Your task to perform on an android device: open a bookmark in the chrome app Image 0: 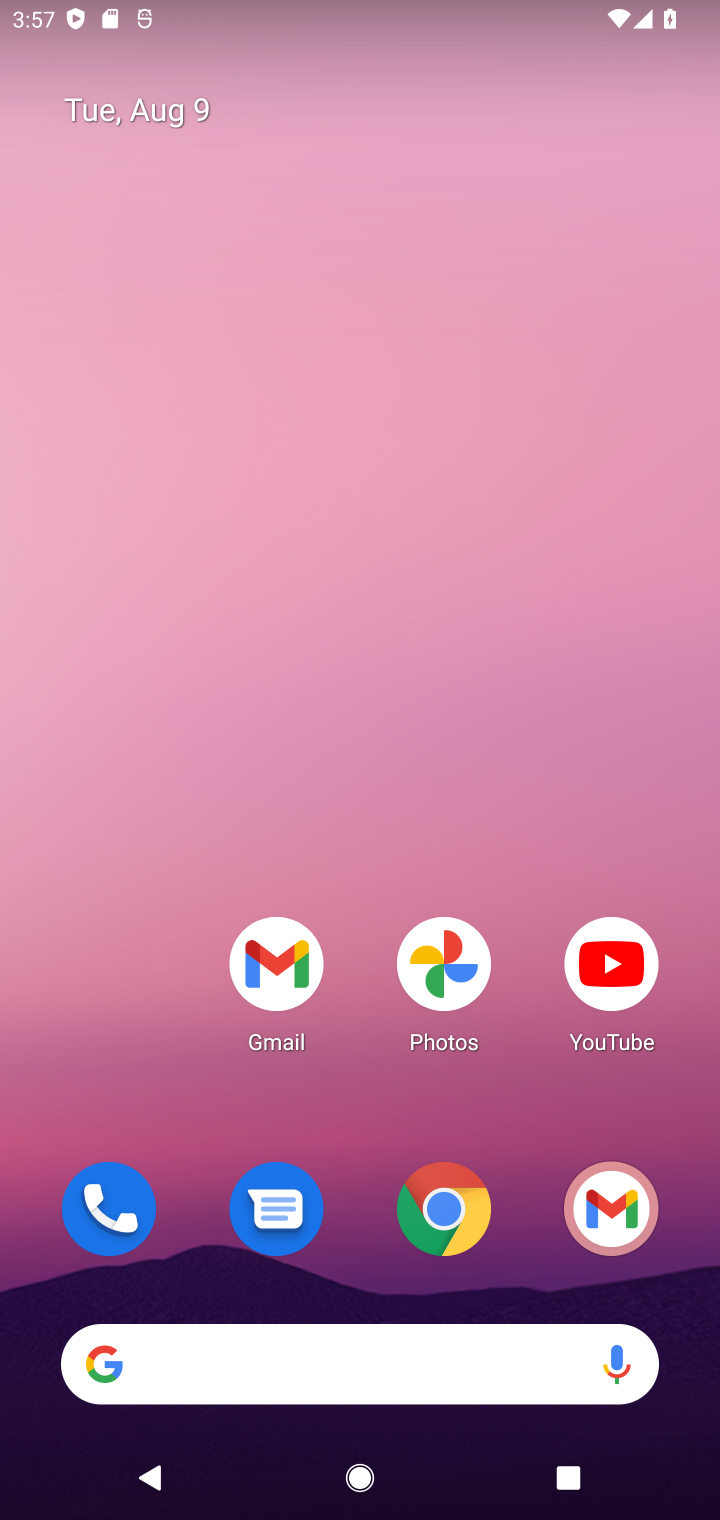
Step 0: click (449, 1209)
Your task to perform on an android device: open a bookmark in the chrome app Image 1: 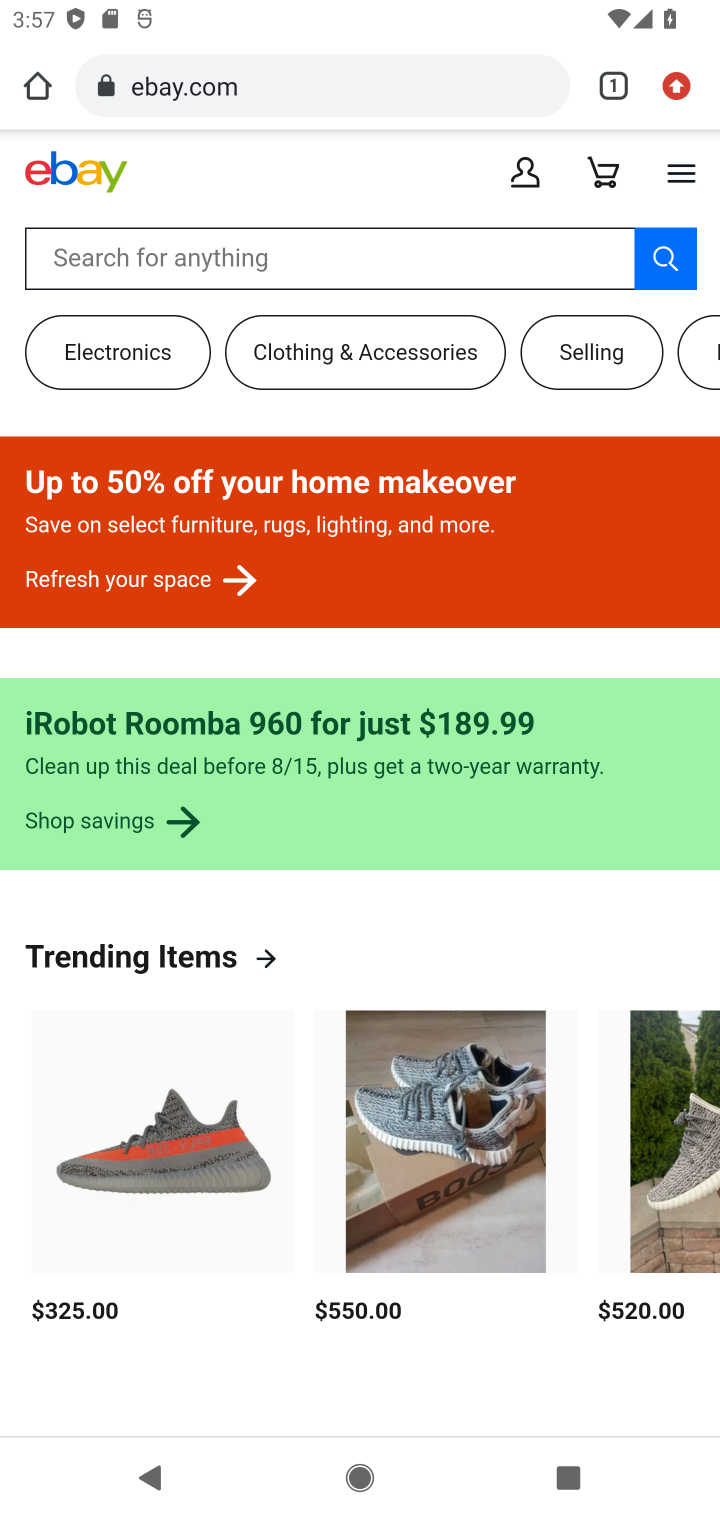
Step 1: click (680, 93)
Your task to perform on an android device: open a bookmark in the chrome app Image 2: 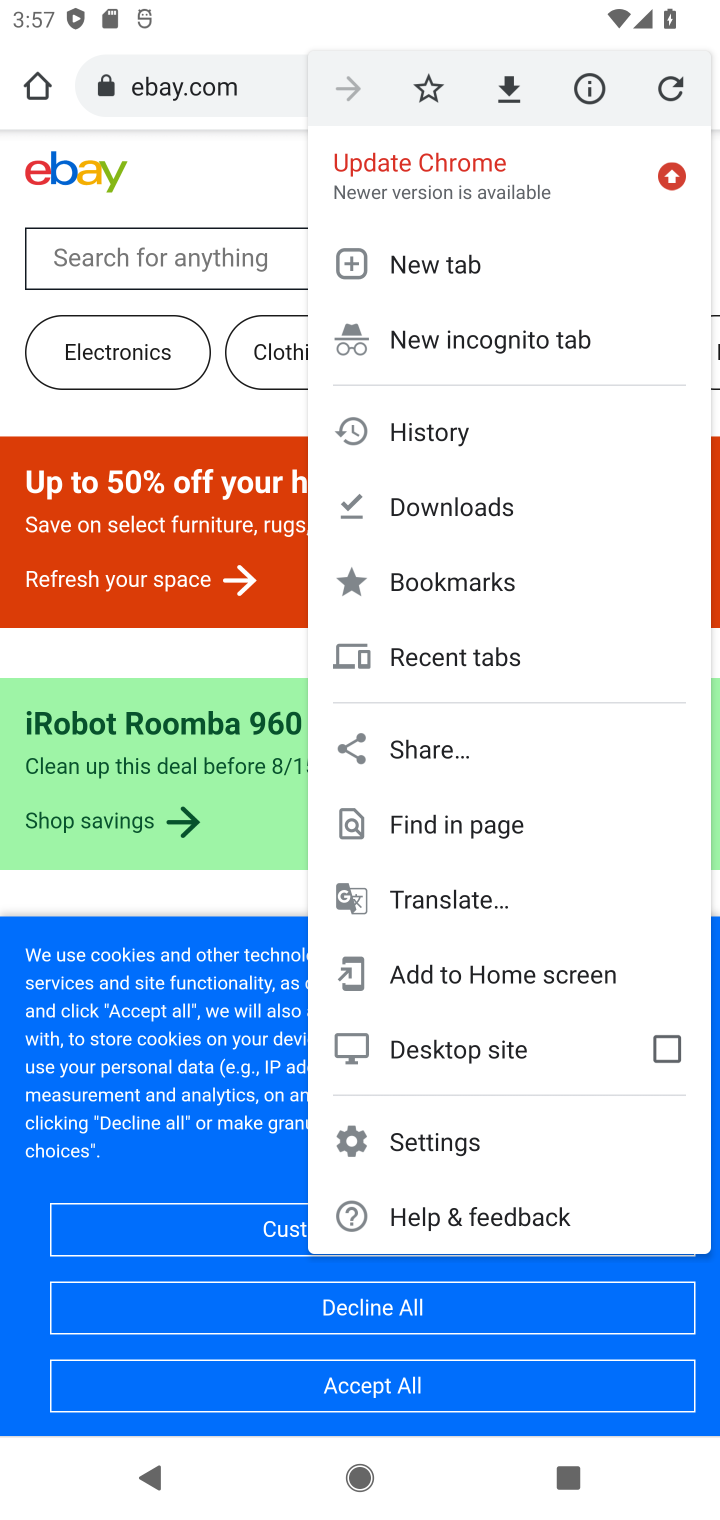
Step 2: click (440, 575)
Your task to perform on an android device: open a bookmark in the chrome app Image 3: 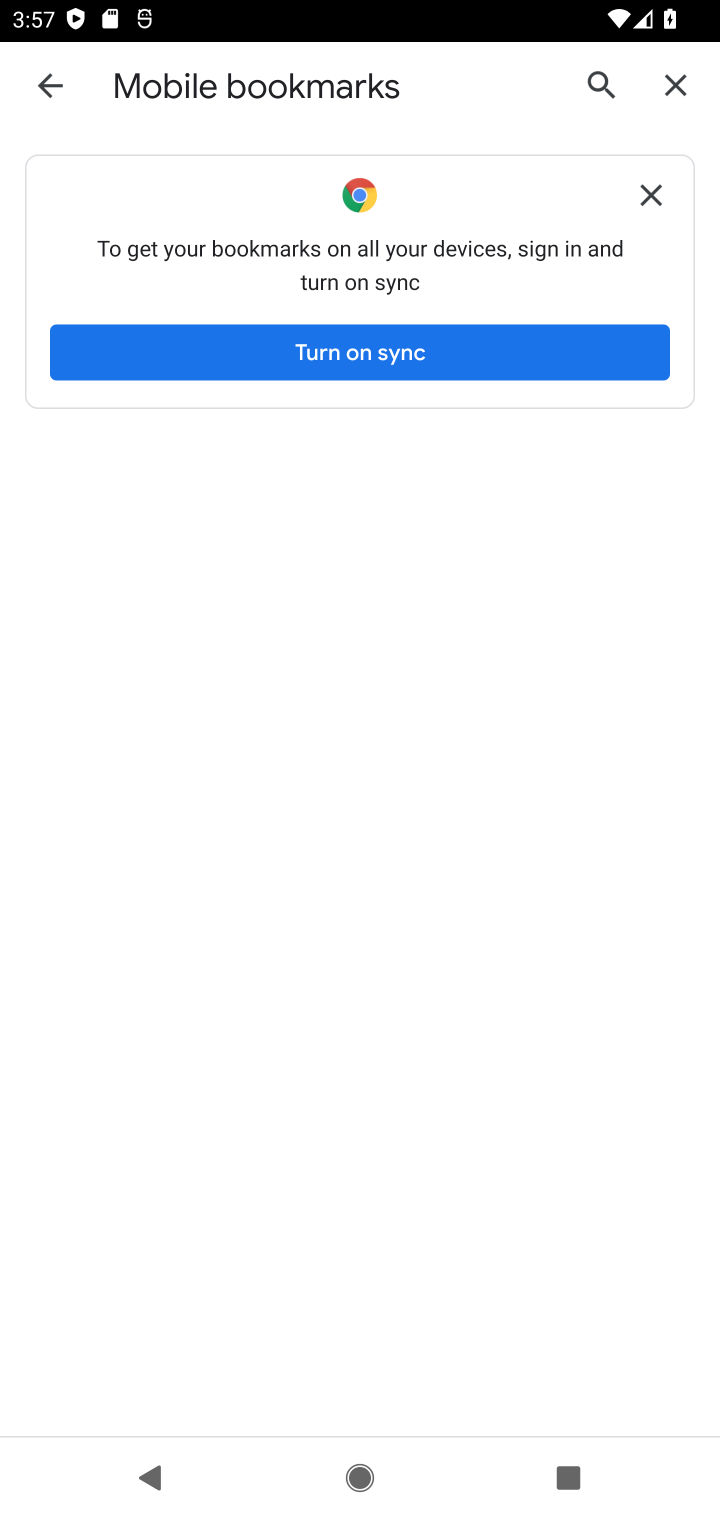
Step 3: task complete